Your task to perform on an android device: Open Android settings Image 0: 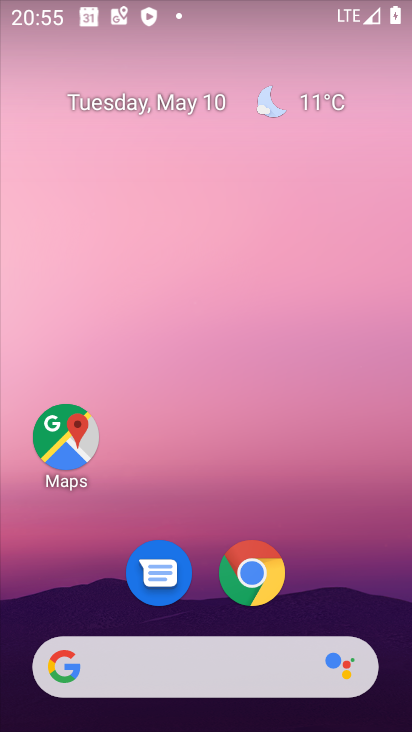
Step 0: drag from (376, 604) to (365, 4)
Your task to perform on an android device: Open Android settings Image 1: 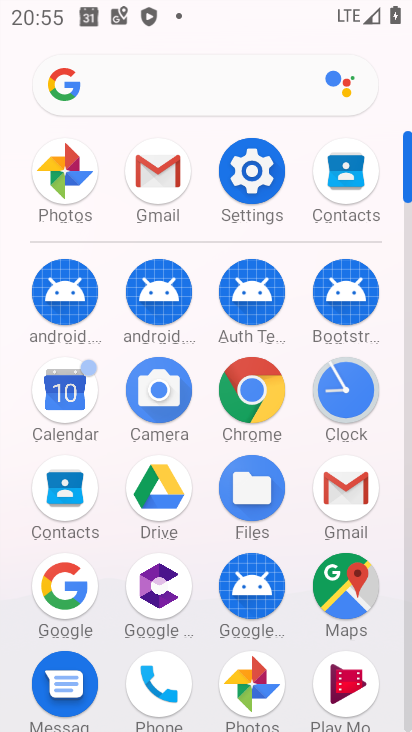
Step 1: click (254, 183)
Your task to perform on an android device: Open Android settings Image 2: 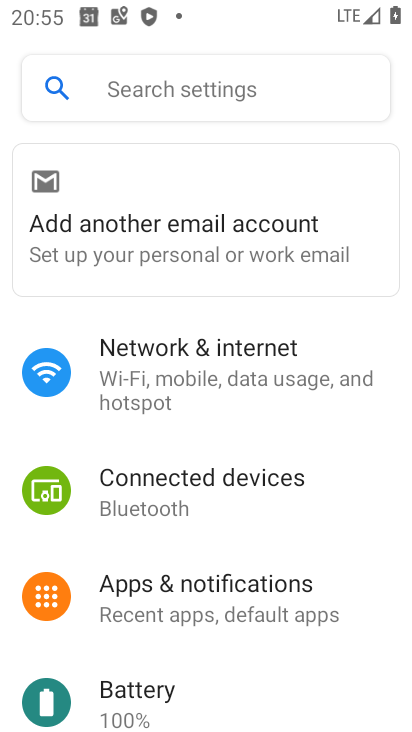
Step 2: task complete